Your task to perform on an android device: open app "Reddit" (install if not already installed) Image 0: 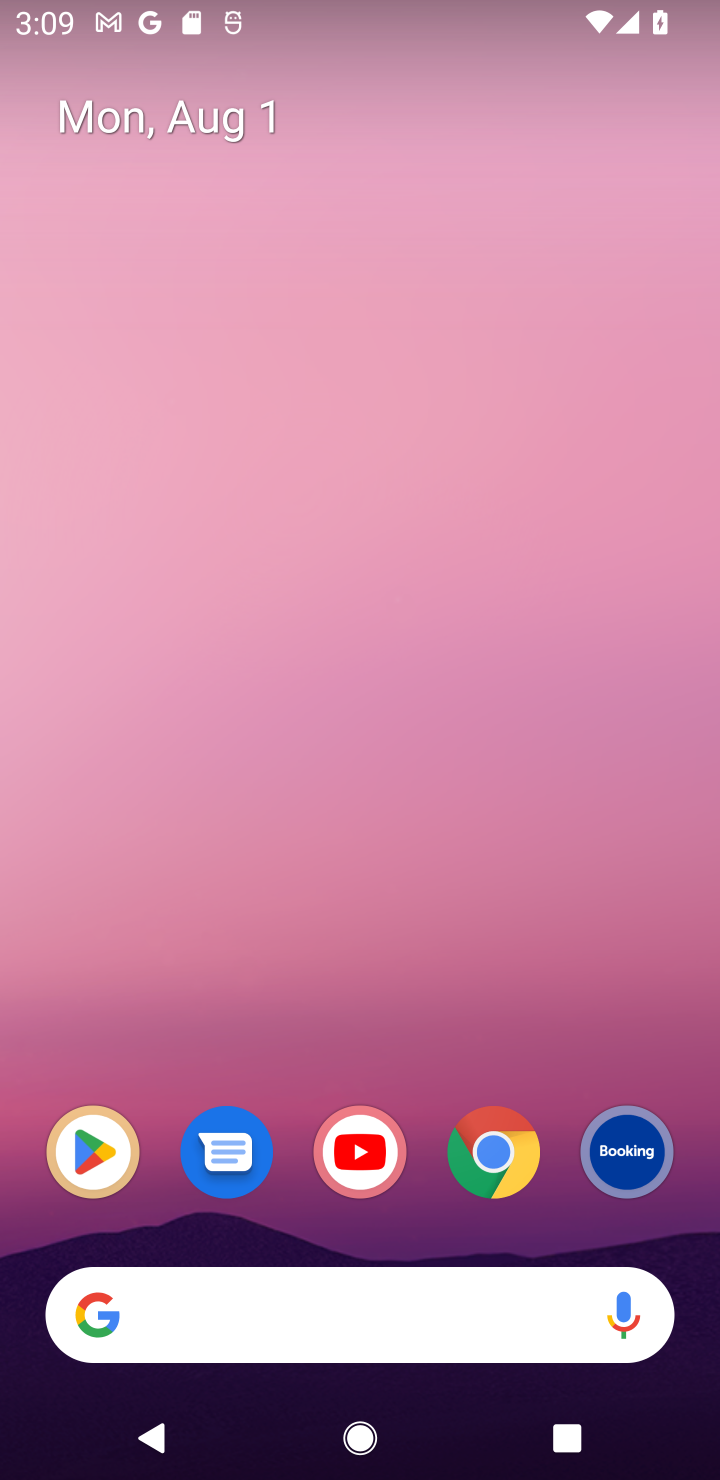
Step 0: click (93, 1150)
Your task to perform on an android device: open app "Reddit" (install if not already installed) Image 1: 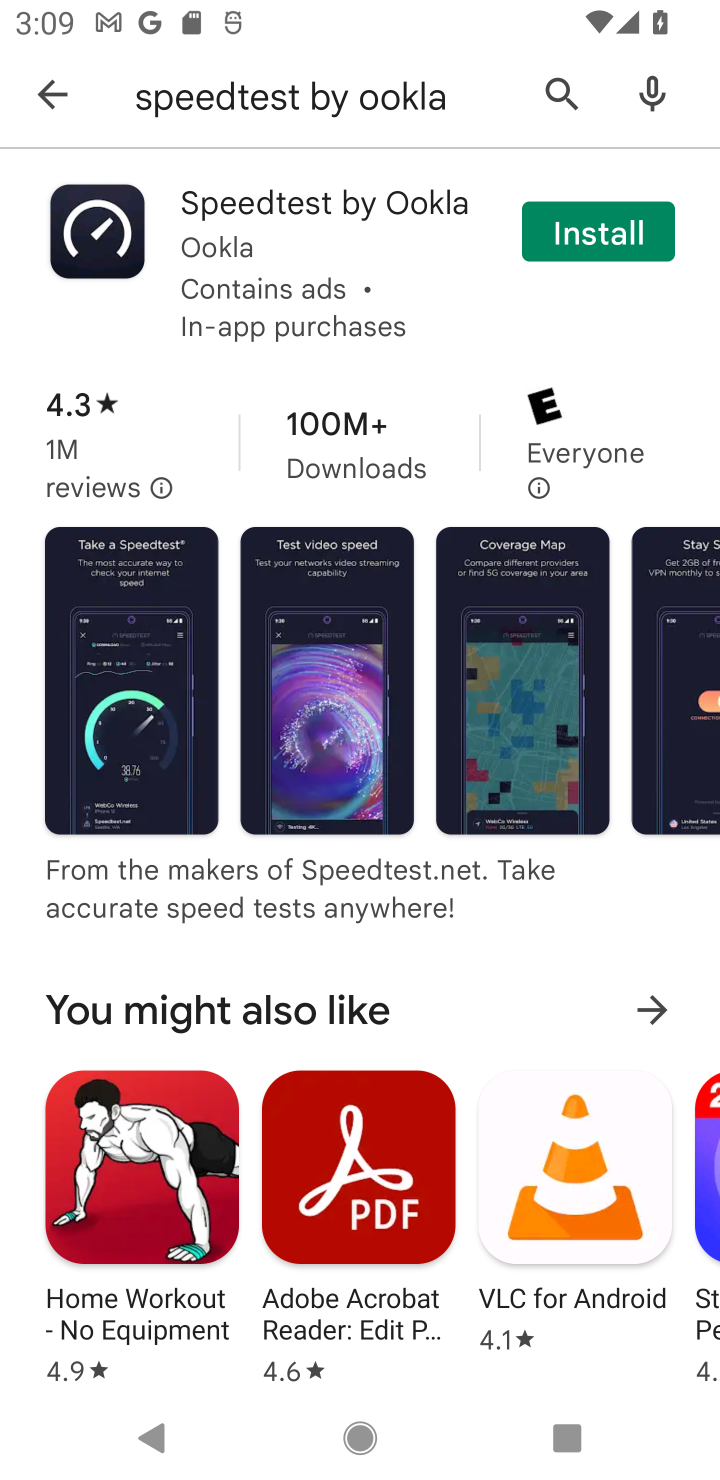
Step 1: click (558, 95)
Your task to perform on an android device: open app "Reddit" (install if not already installed) Image 2: 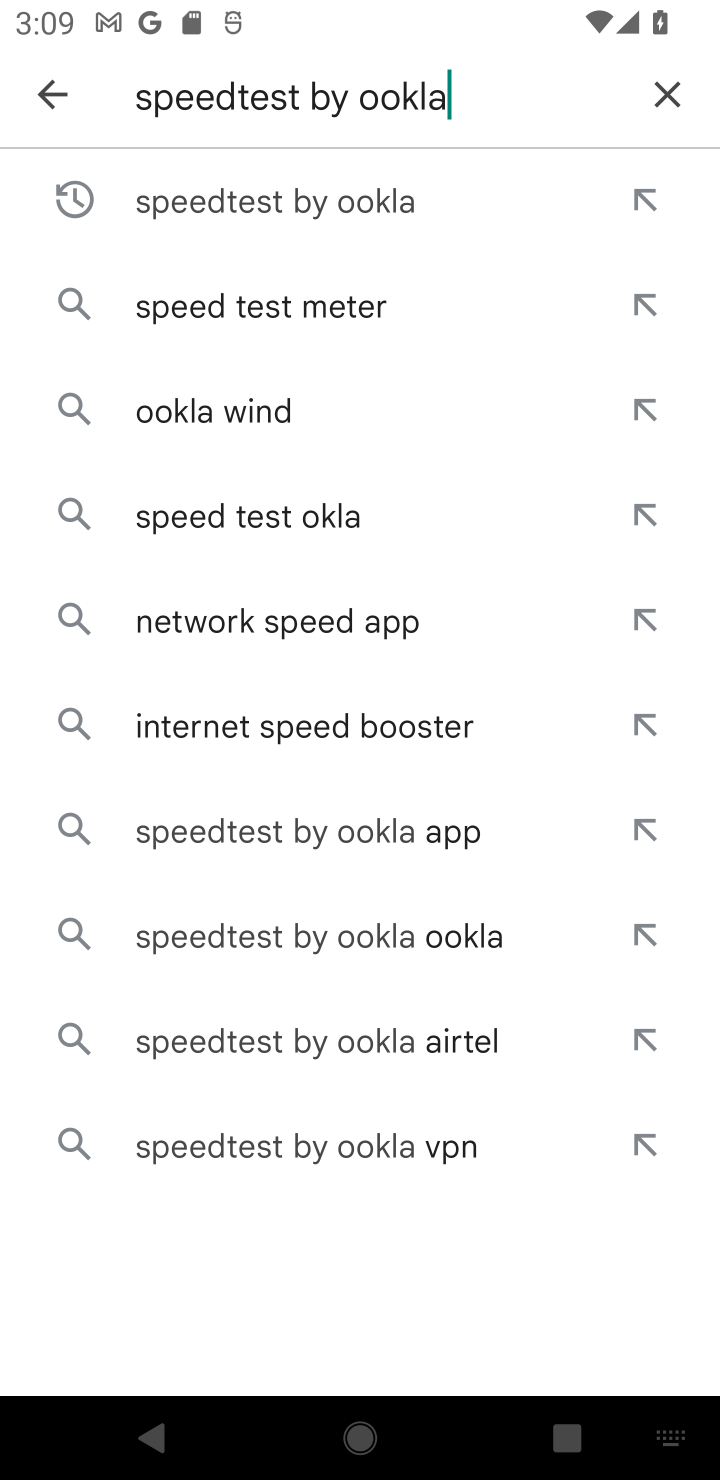
Step 2: click (674, 104)
Your task to perform on an android device: open app "Reddit" (install if not already installed) Image 3: 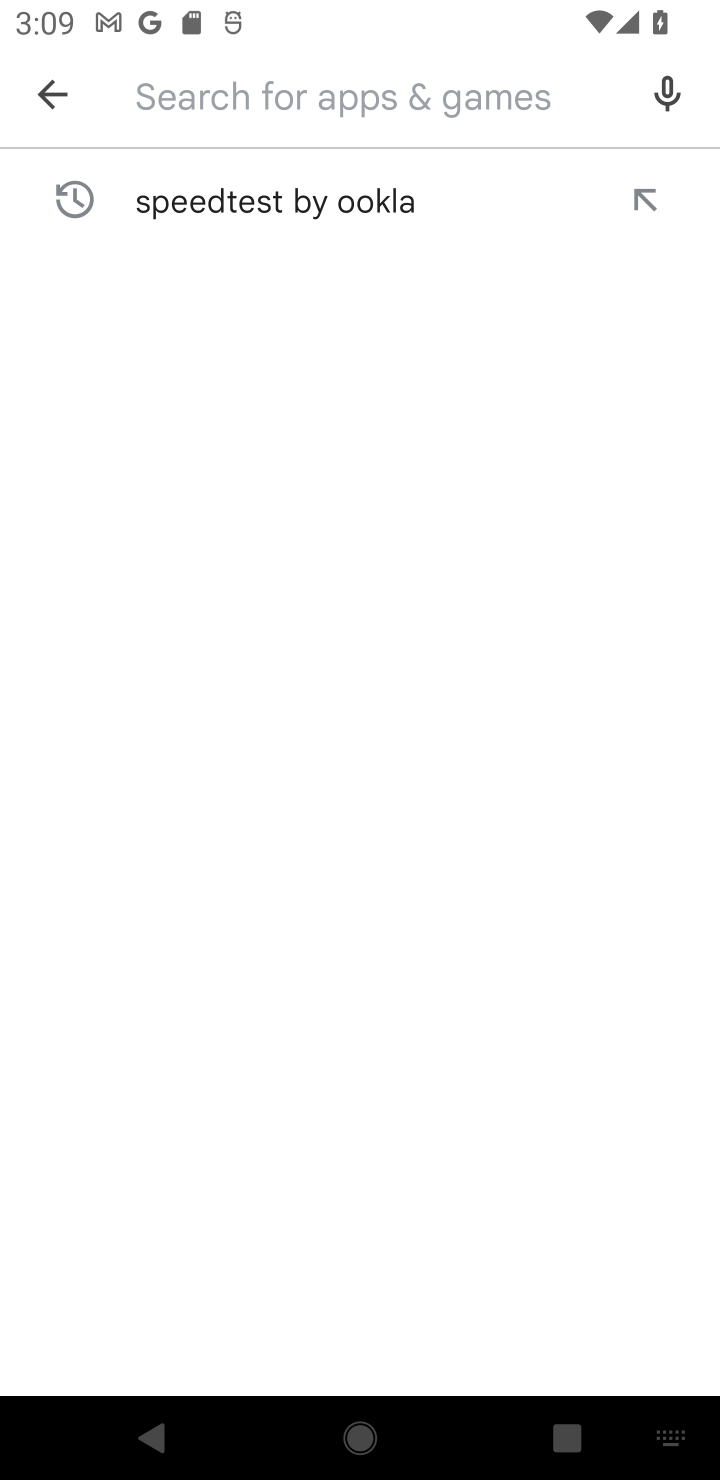
Step 3: type "Reddit"
Your task to perform on an android device: open app "Reddit" (install if not already installed) Image 4: 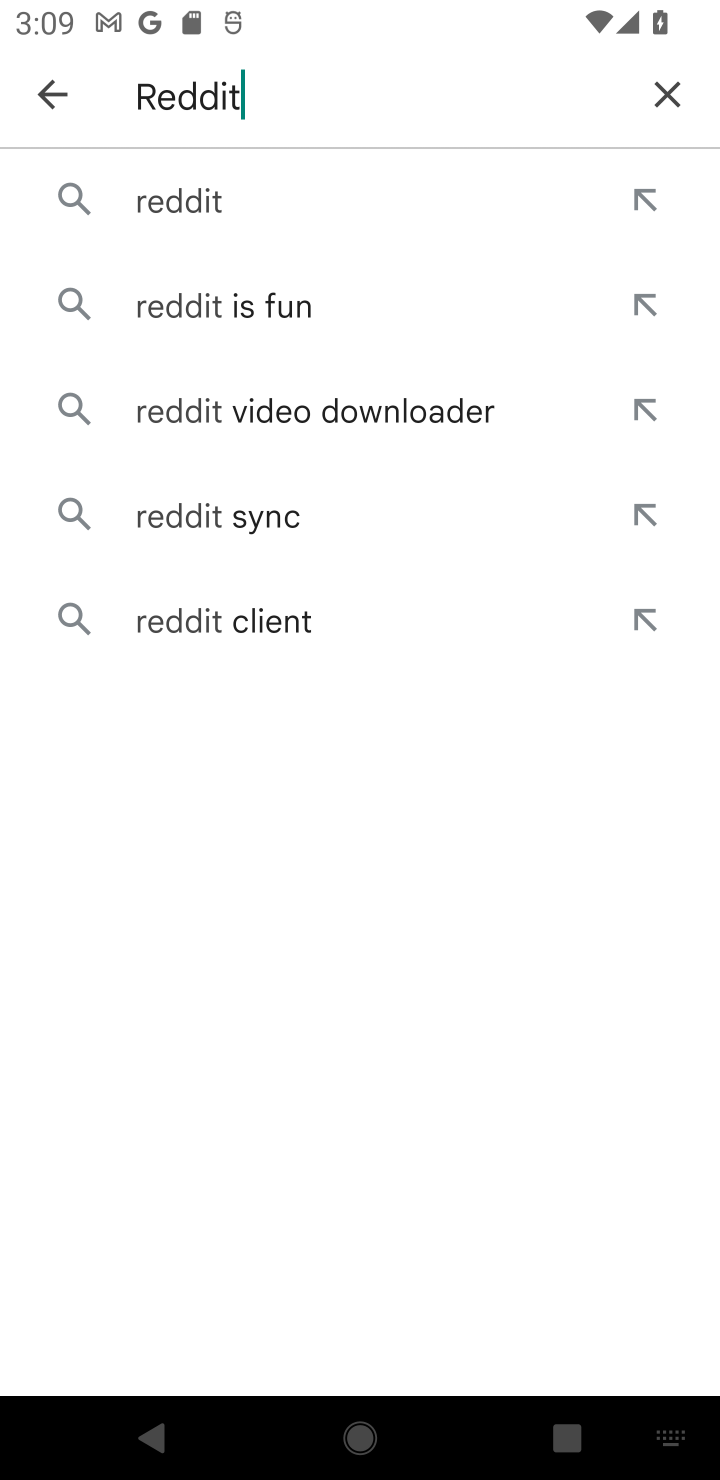
Step 4: click (125, 219)
Your task to perform on an android device: open app "Reddit" (install if not already installed) Image 5: 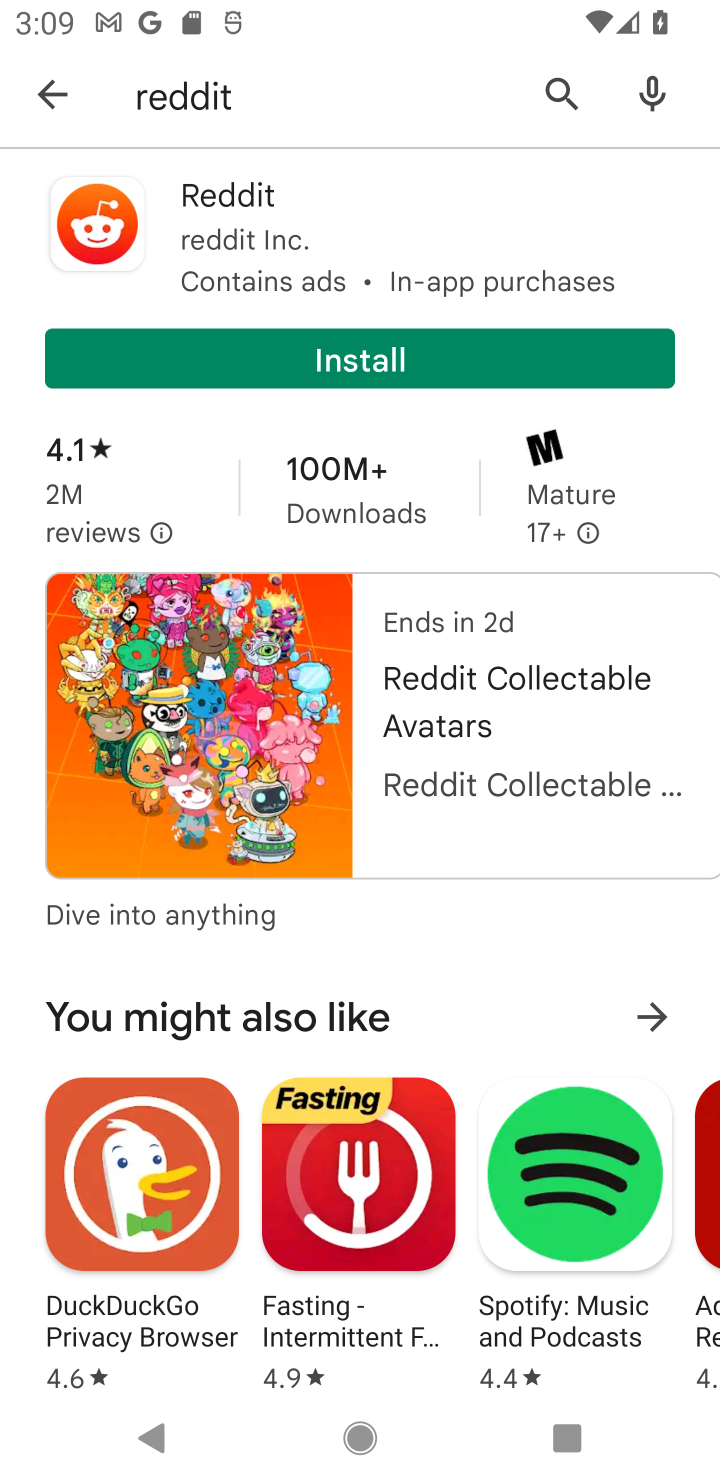
Step 5: click (192, 335)
Your task to perform on an android device: open app "Reddit" (install if not already installed) Image 6: 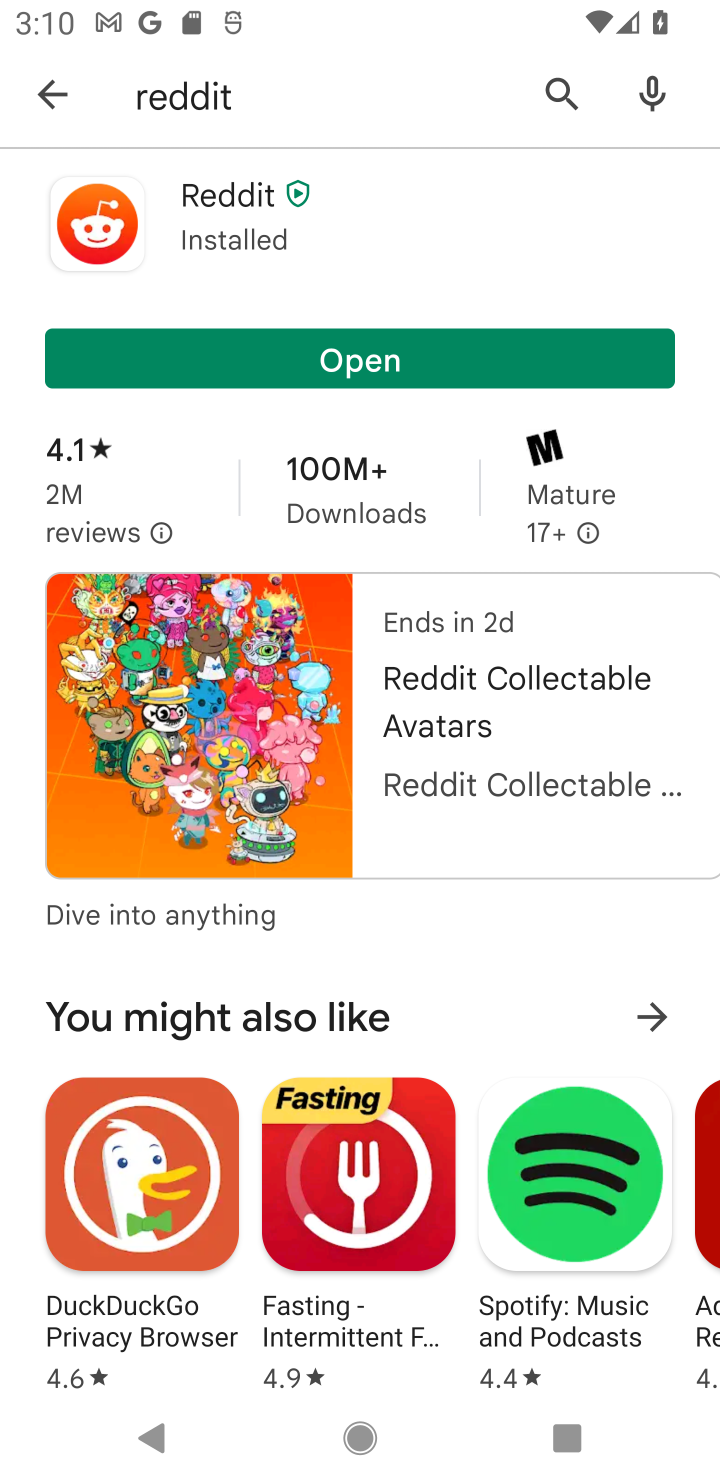
Step 6: click (433, 371)
Your task to perform on an android device: open app "Reddit" (install if not already installed) Image 7: 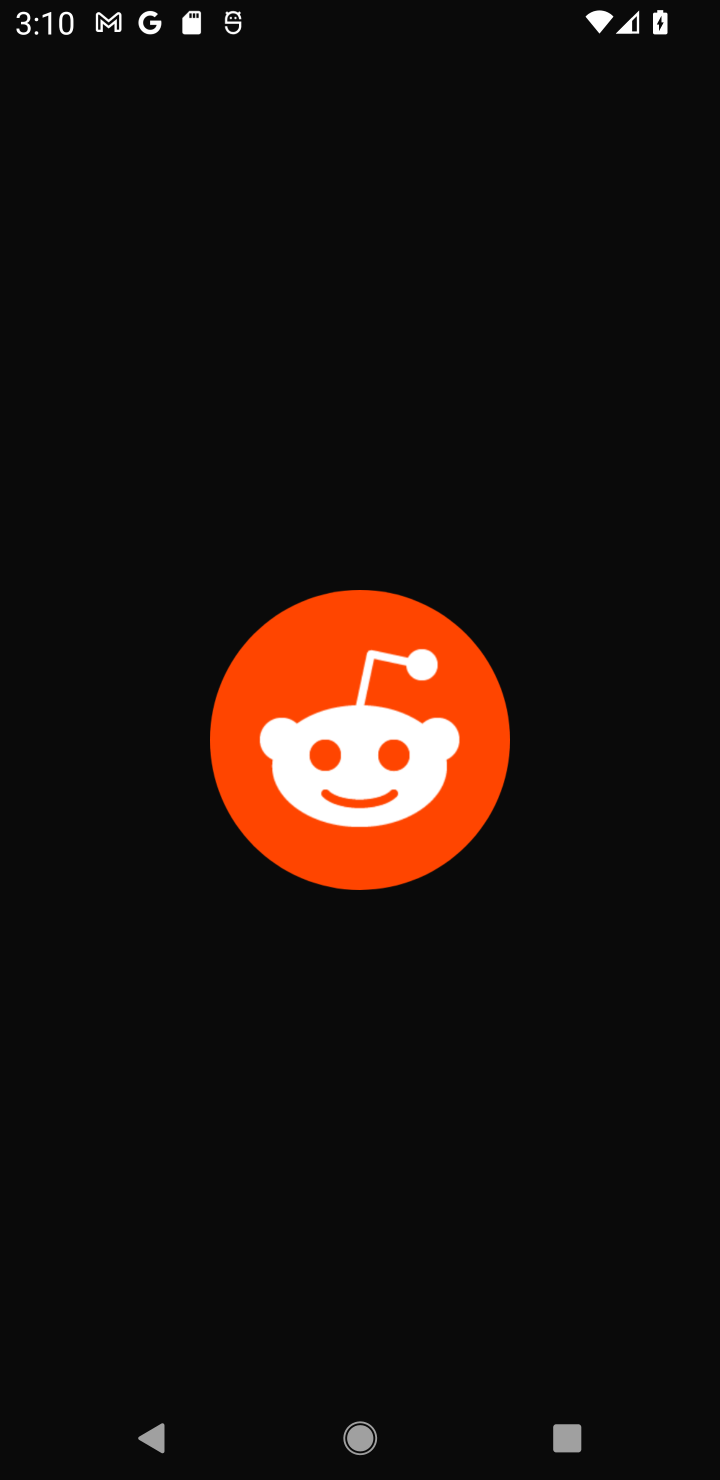
Step 7: task complete